Your task to perform on an android device: Open Google Chrome and open the bookmarks view Image 0: 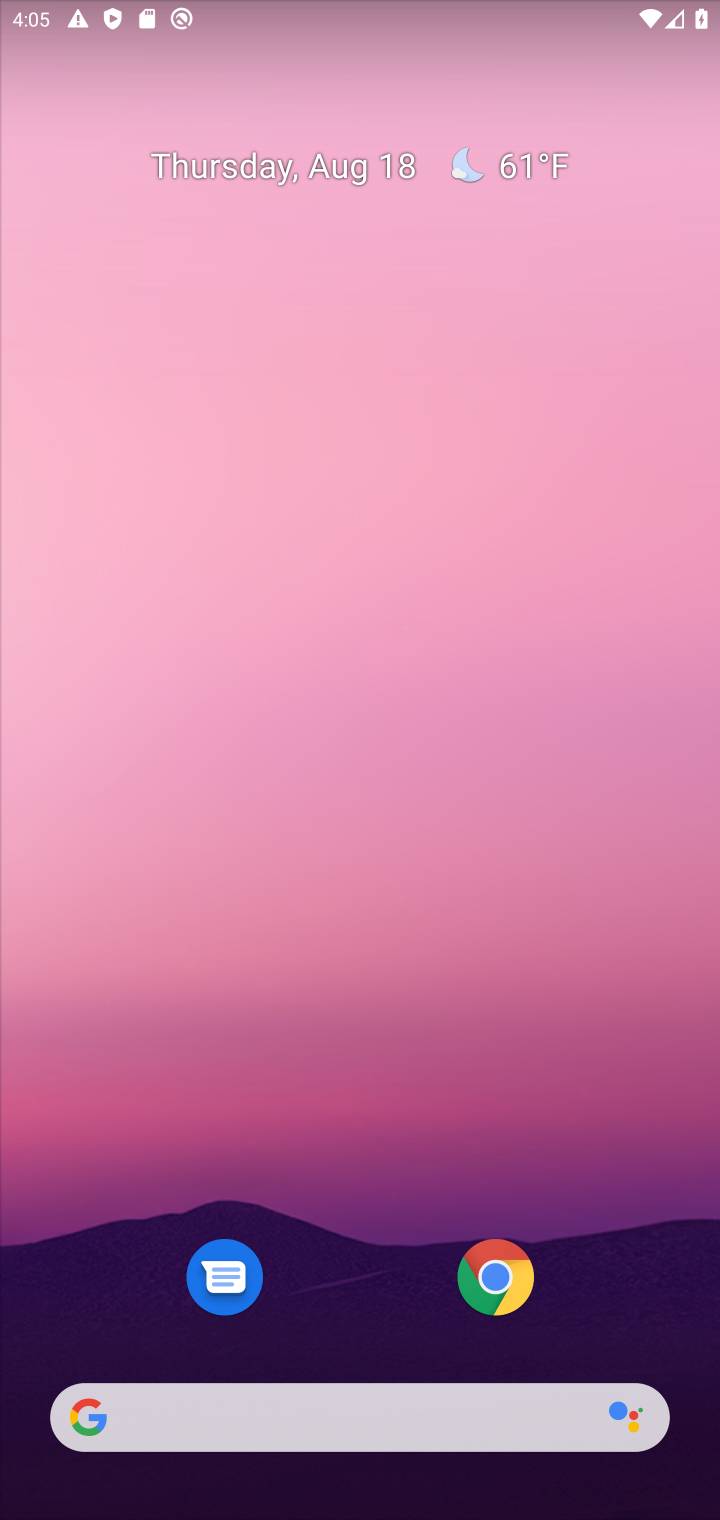
Step 0: drag from (284, 1142) to (354, 0)
Your task to perform on an android device: Open Google Chrome and open the bookmarks view Image 1: 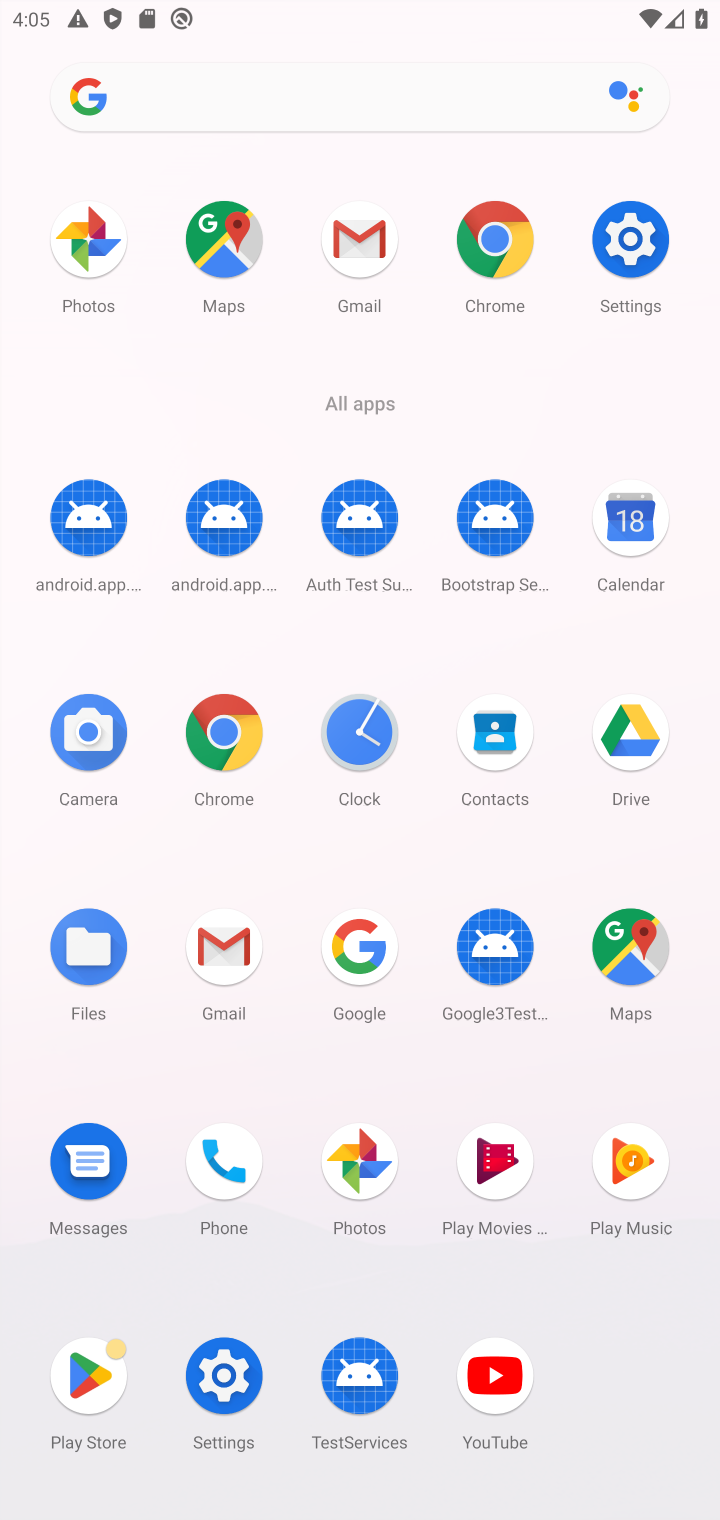
Step 1: task complete